Your task to perform on an android device: all mails in gmail Image 0: 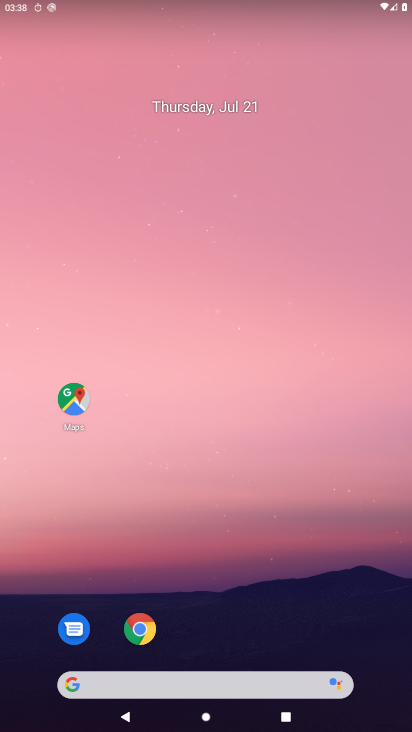
Step 0: drag from (50, 688) to (290, 99)
Your task to perform on an android device: all mails in gmail Image 1: 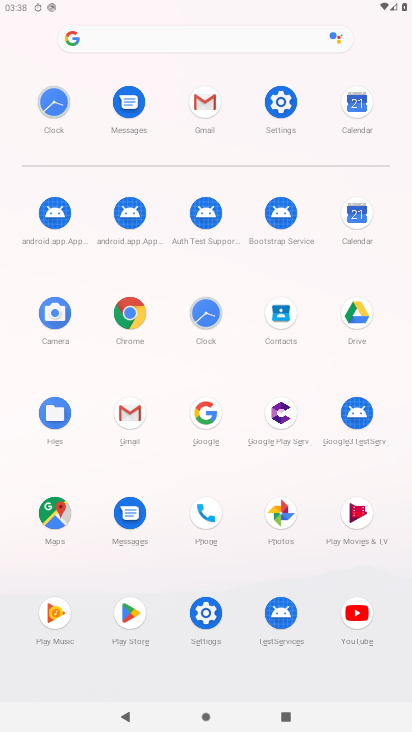
Step 1: click (132, 391)
Your task to perform on an android device: all mails in gmail Image 2: 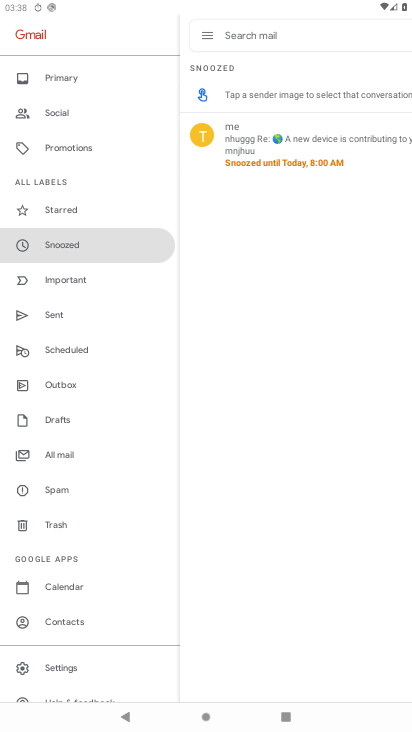
Step 2: click (64, 450)
Your task to perform on an android device: all mails in gmail Image 3: 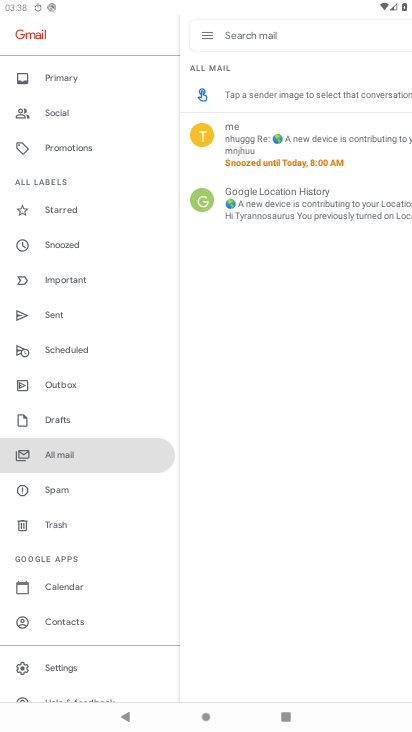
Step 3: task complete